Your task to perform on an android device: View the shopping cart on walmart.com. Add "macbook pro 13 inch" to the cart on walmart.com Image 0: 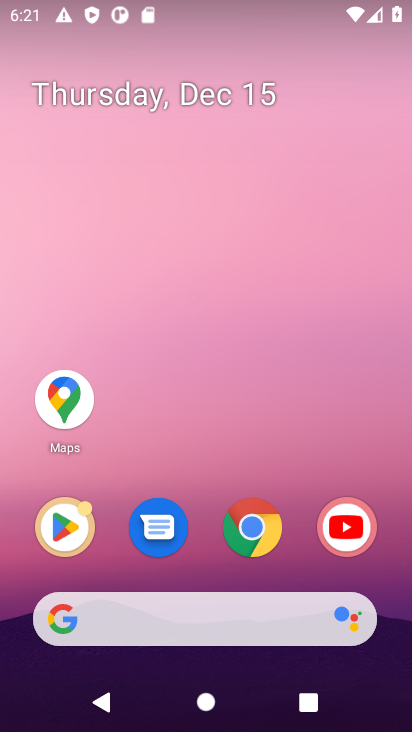
Step 0: click (242, 535)
Your task to perform on an android device: View the shopping cart on walmart.com. Add "macbook pro 13 inch" to the cart on walmart.com Image 1: 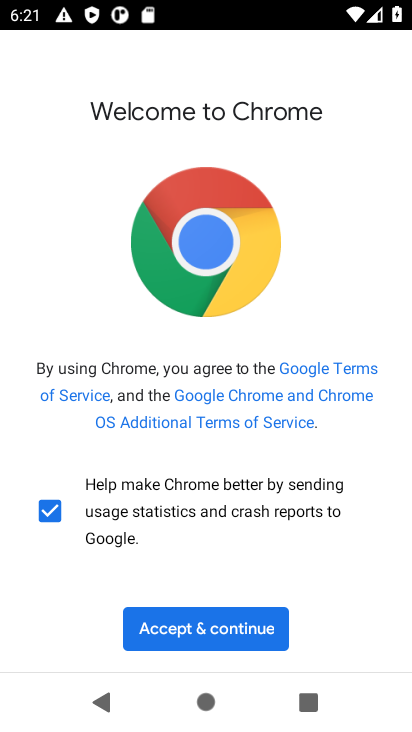
Step 1: click (160, 640)
Your task to perform on an android device: View the shopping cart on walmart.com. Add "macbook pro 13 inch" to the cart on walmart.com Image 2: 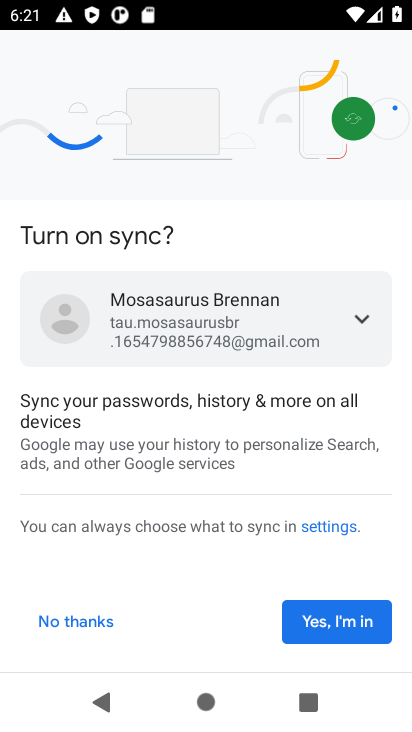
Step 2: click (341, 631)
Your task to perform on an android device: View the shopping cart on walmart.com. Add "macbook pro 13 inch" to the cart on walmart.com Image 3: 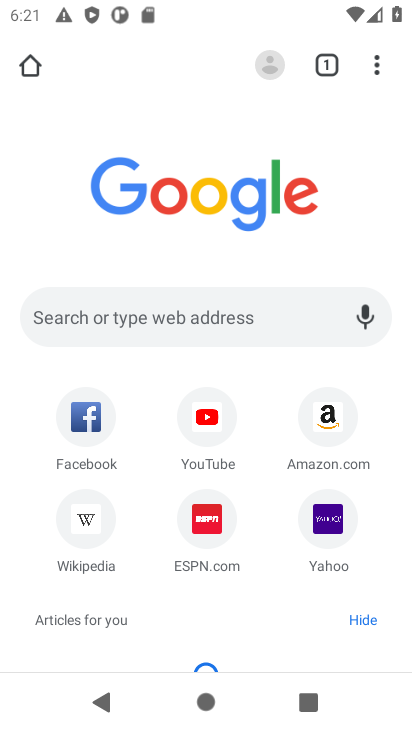
Step 3: click (119, 309)
Your task to perform on an android device: View the shopping cart on walmart.com. Add "macbook pro 13 inch" to the cart on walmart.com Image 4: 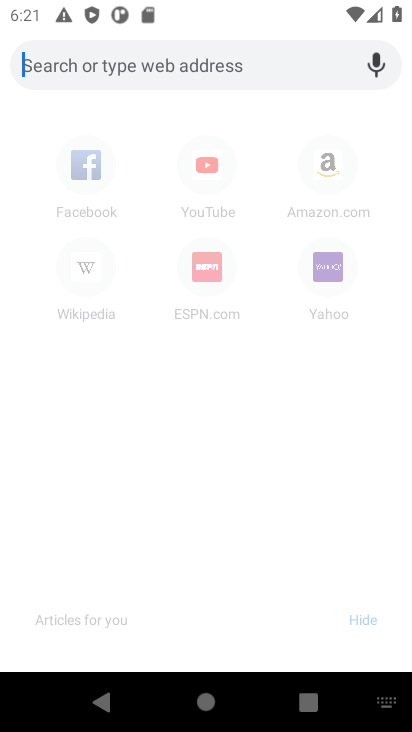
Step 4: type "walmart"
Your task to perform on an android device: View the shopping cart on walmart.com. Add "macbook pro 13 inch" to the cart on walmart.com Image 5: 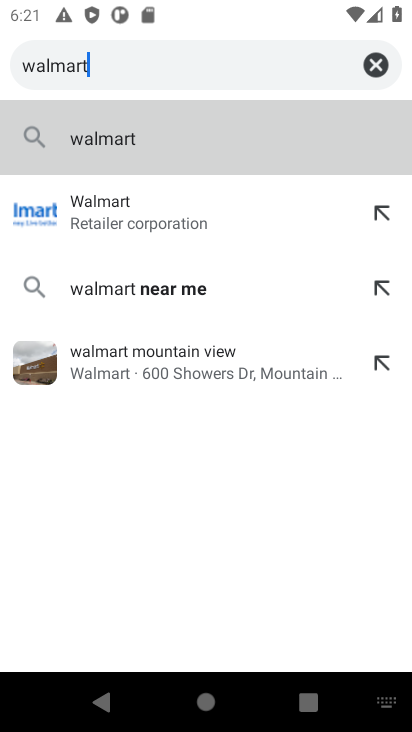
Step 5: click (105, 195)
Your task to perform on an android device: View the shopping cart on walmart.com. Add "macbook pro 13 inch" to the cart on walmart.com Image 6: 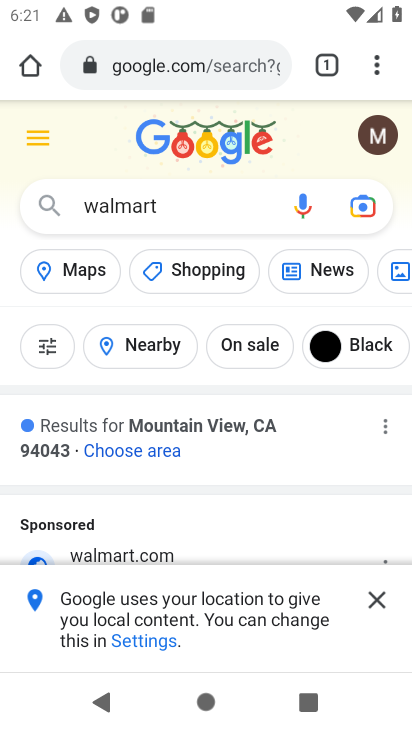
Step 6: click (372, 607)
Your task to perform on an android device: View the shopping cart on walmart.com. Add "macbook pro 13 inch" to the cart on walmart.com Image 7: 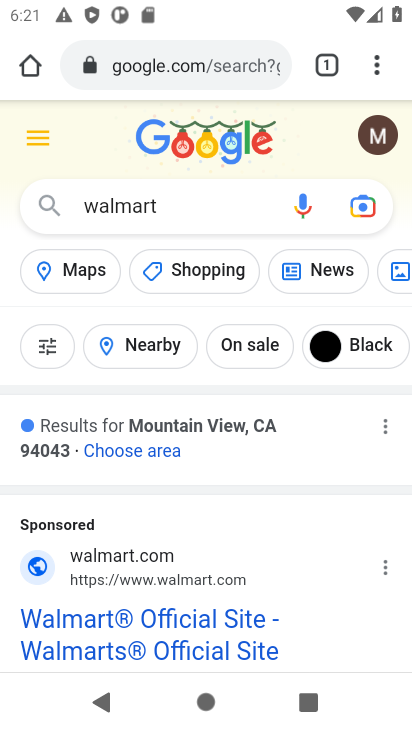
Step 7: click (98, 621)
Your task to perform on an android device: View the shopping cart on walmart.com. Add "macbook pro 13 inch" to the cart on walmart.com Image 8: 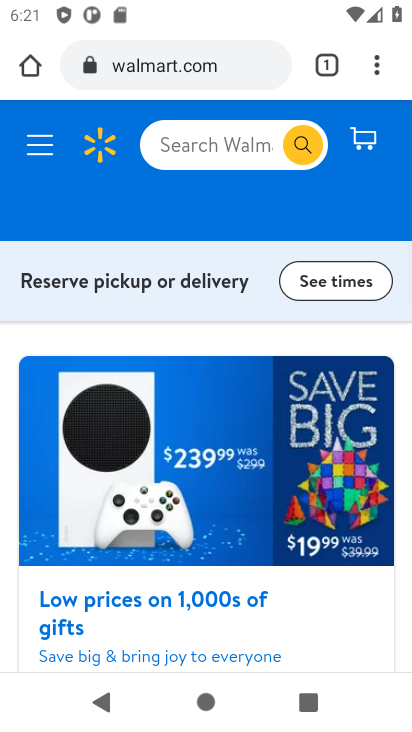
Step 8: click (197, 135)
Your task to perform on an android device: View the shopping cart on walmart.com. Add "macbook pro 13 inch" to the cart on walmart.com Image 9: 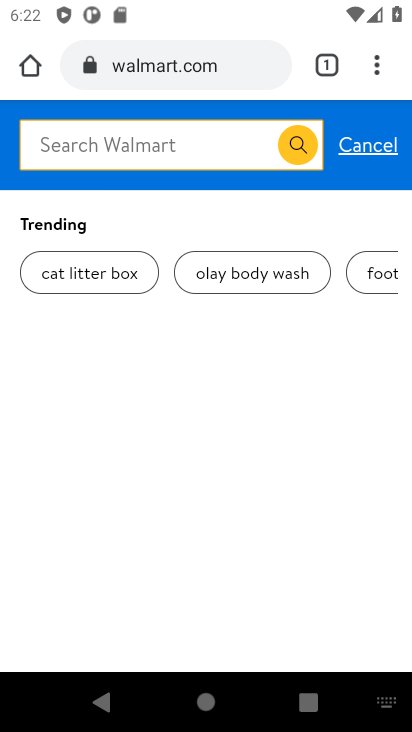
Step 9: type "macbook pro 3"
Your task to perform on an android device: View the shopping cart on walmart.com. Add "macbook pro 13 inch" to the cart on walmart.com Image 10: 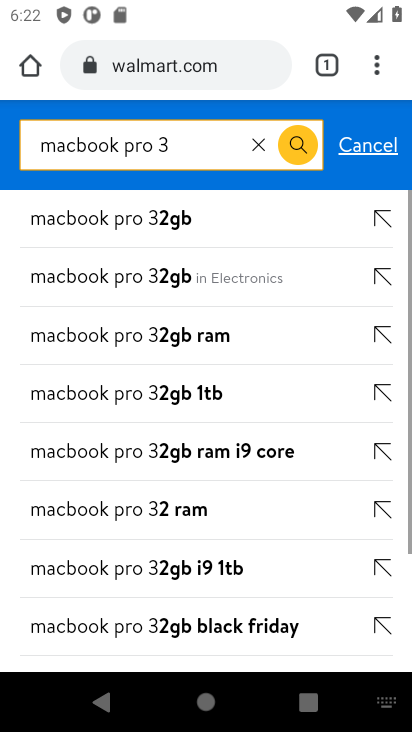
Step 10: click (293, 163)
Your task to perform on an android device: View the shopping cart on walmart.com. Add "macbook pro 13 inch" to the cart on walmart.com Image 11: 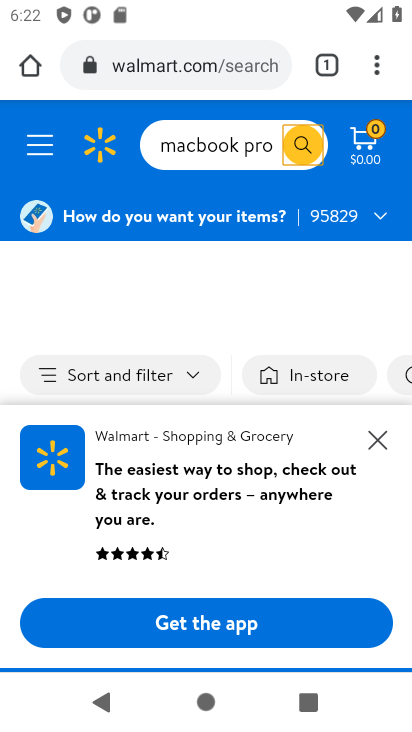
Step 11: click (375, 438)
Your task to perform on an android device: View the shopping cart on walmart.com. Add "macbook pro 13 inch" to the cart on walmart.com Image 12: 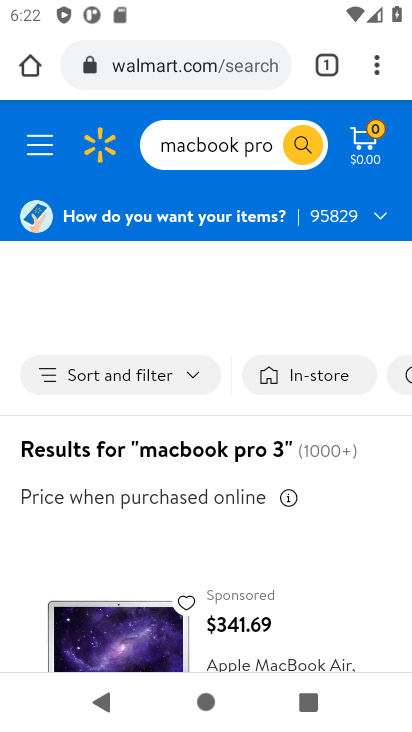
Step 12: drag from (265, 571) to (324, 343)
Your task to perform on an android device: View the shopping cart on walmart.com. Add "macbook pro 13 inch" to the cart on walmart.com Image 13: 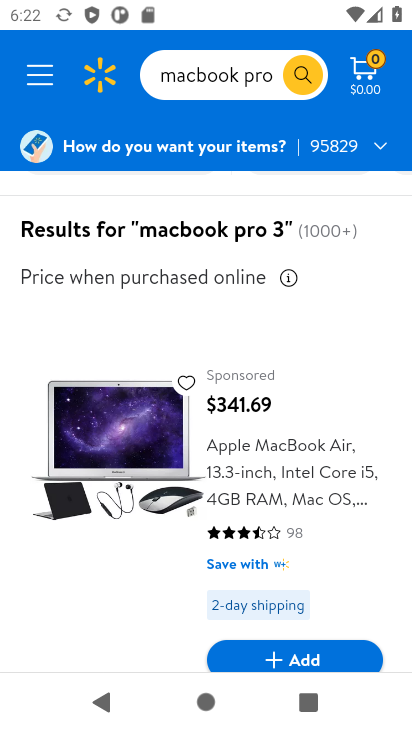
Step 13: click (310, 643)
Your task to perform on an android device: View the shopping cart on walmart.com. Add "macbook pro 13 inch" to the cart on walmart.com Image 14: 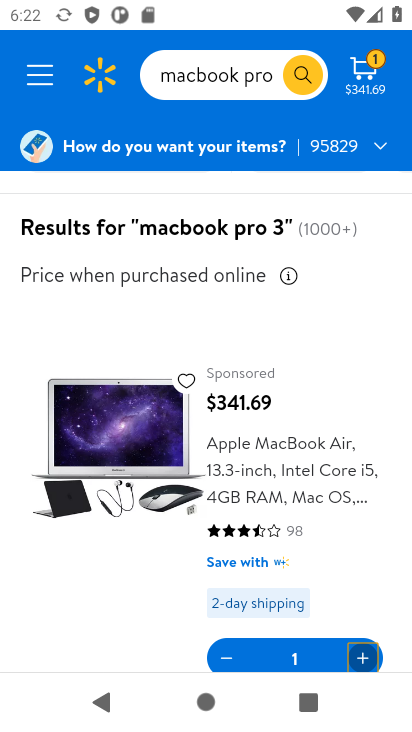
Step 14: task complete